Your task to perform on an android device: install app "YouTube Kids" Image 0: 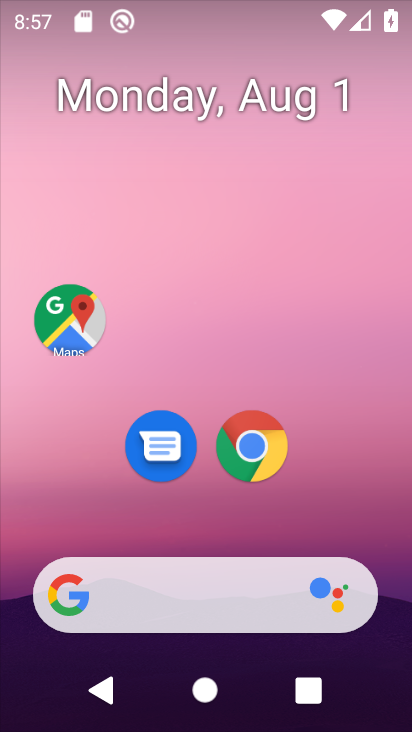
Step 0: drag from (217, 514) to (191, 101)
Your task to perform on an android device: install app "YouTube Kids" Image 1: 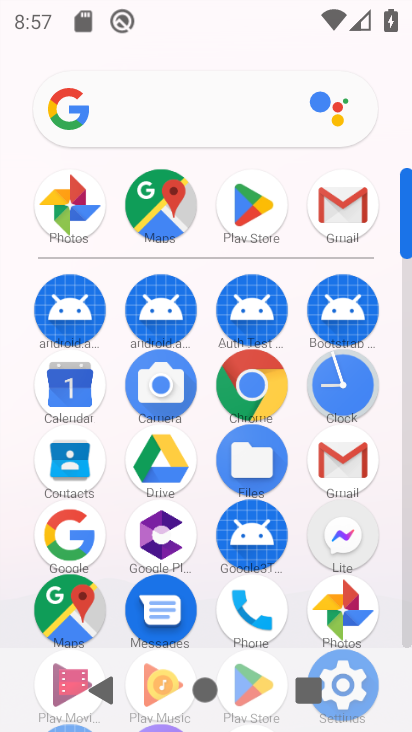
Step 1: click (248, 202)
Your task to perform on an android device: install app "YouTube Kids" Image 2: 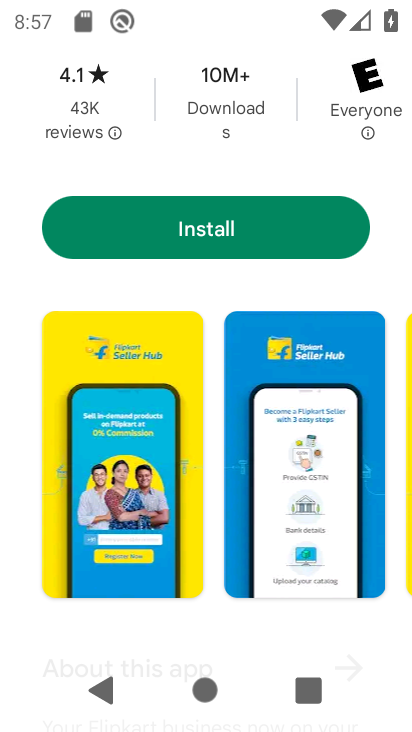
Step 2: drag from (276, 335) to (267, 566)
Your task to perform on an android device: install app "YouTube Kids" Image 3: 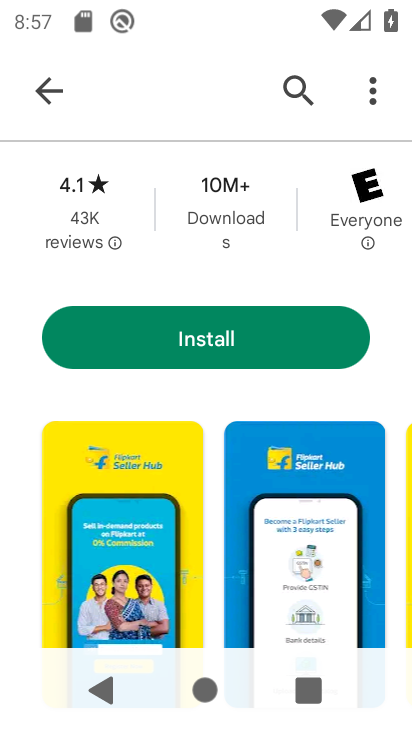
Step 3: click (287, 93)
Your task to perform on an android device: install app "YouTube Kids" Image 4: 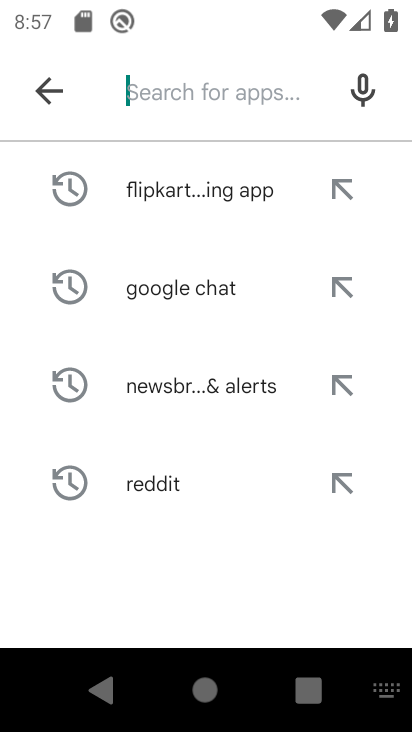
Step 4: type "YouTube Kids"
Your task to perform on an android device: install app "YouTube Kids" Image 5: 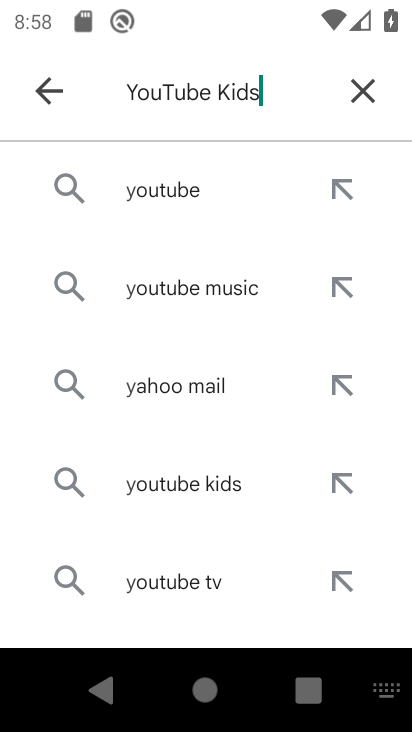
Step 5: type ""
Your task to perform on an android device: install app "YouTube Kids" Image 6: 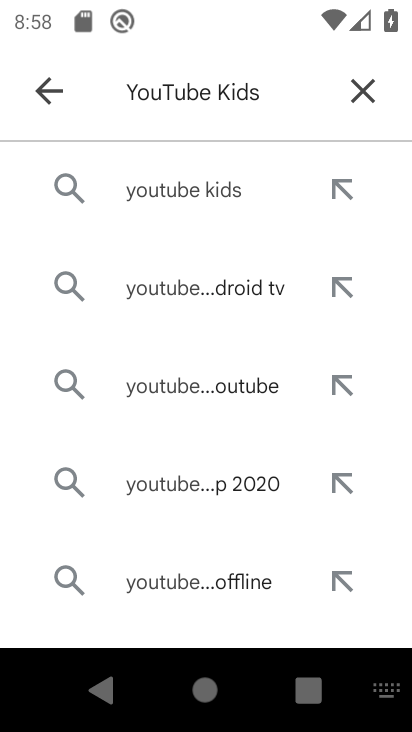
Step 6: click (170, 185)
Your task to perform on an android device: install app "YouTube Kids" Image 7: 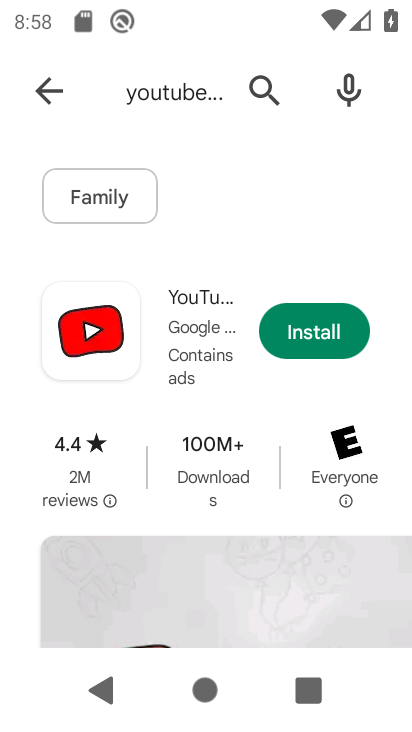
Step 7: click (317, 333)
Your task to perform on an android device: install app "YouTube Kids" Image 8: 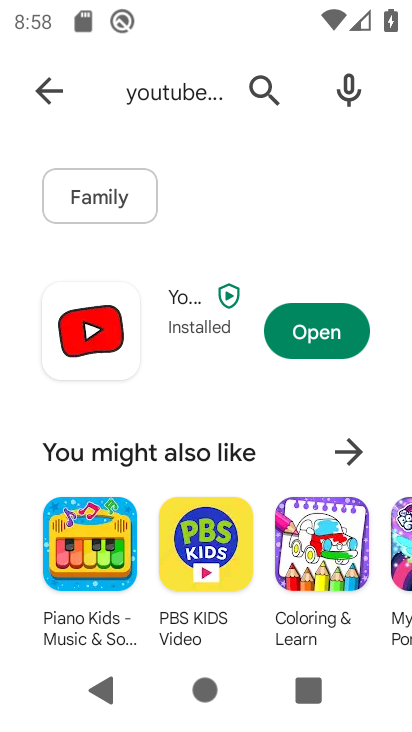
Step 8: task complete